Your task to perform on an android device: Turn on the flashlight Image 0: 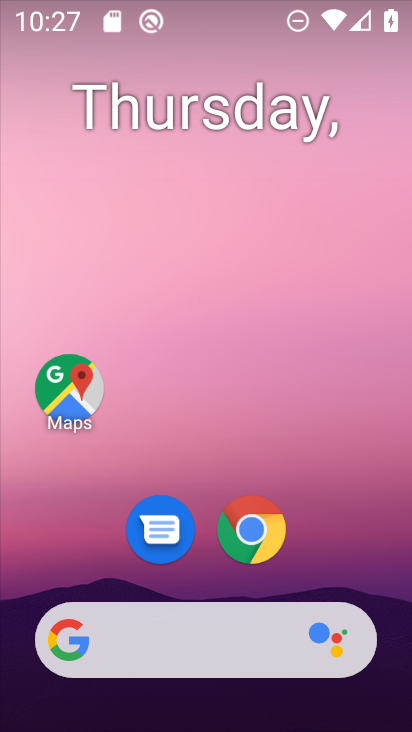
Step 0: drag from (238, 119) to (128, 677)
Your task to perform on an android device: Turn on the flashlight Image 1: 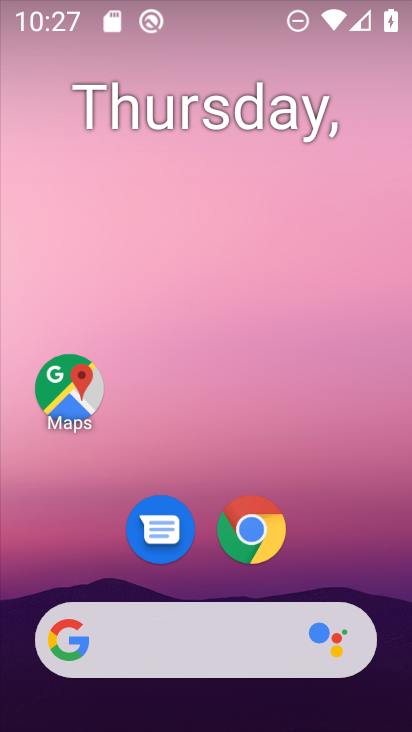
Step 1: drag from (252, 0) to (181, 664)
Your task to perform on an android device: Turn on the flashlight Image 2: 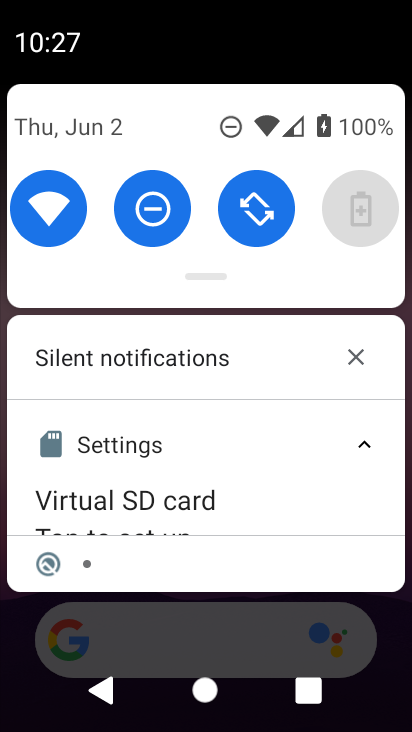
Step 2: drag from (224, 244) to (310, 703)
Your task to perform on an android device: Turn on the flashlight Image 3: 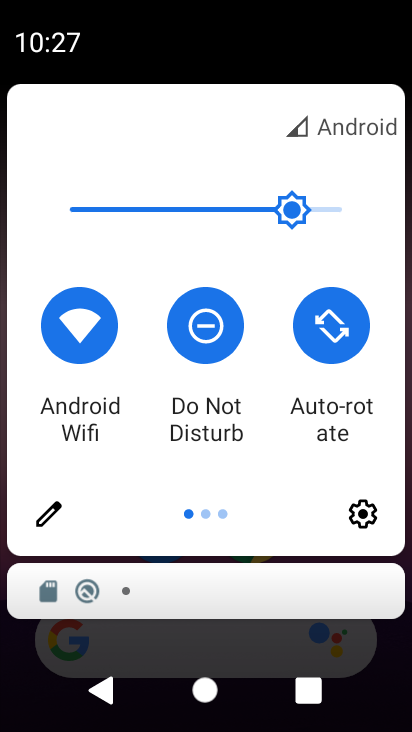
Step 3: drag from (366, 385) to (55, 563)
Your task to perform on an android device: Turn on the flashlight Image 4: 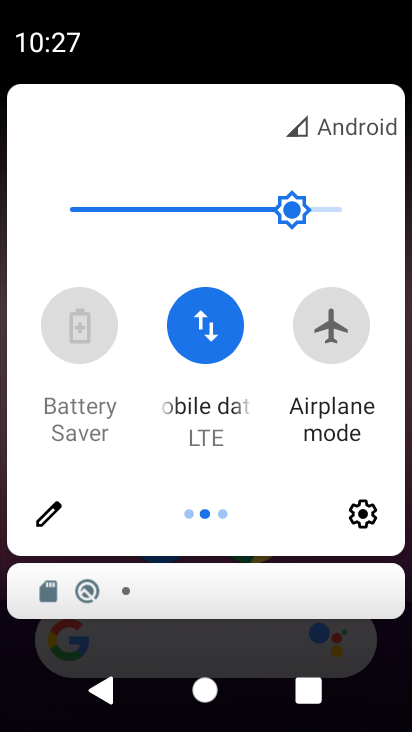
Step 4: click (380, 396)
Your task to perform on an android device: Turn on the flashlight Image 5: 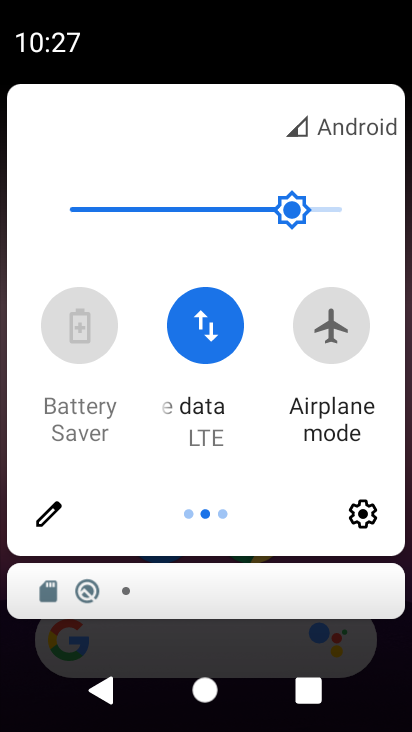
Step 5: task complete